Your task to perform on an android device: add a label to a message in the gmail app Image 0: 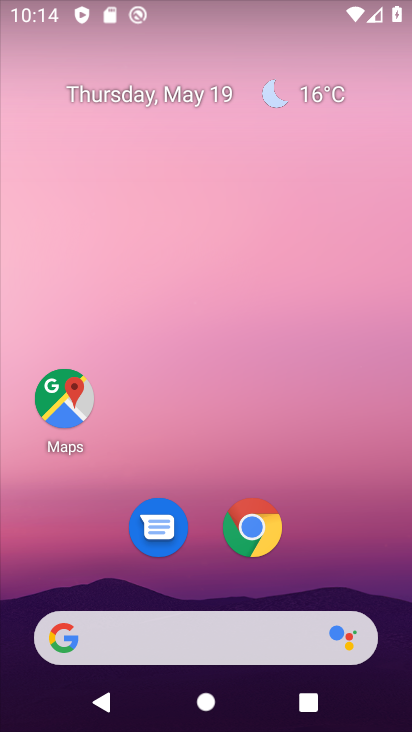
Step 0: drag from (191, 583) to (146, 86)
Your task to perform on an android device: add a label to a message in the gmail app Image 1: 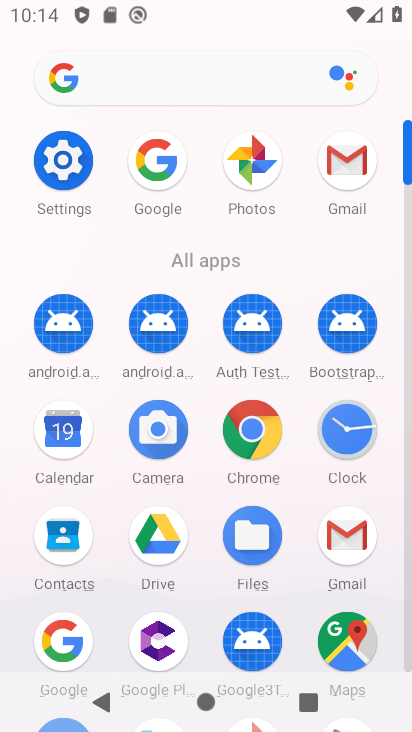
Step 1: click (339, 169)
Your task to perform on an android device: add a label to a message in the gmail app Image 2: 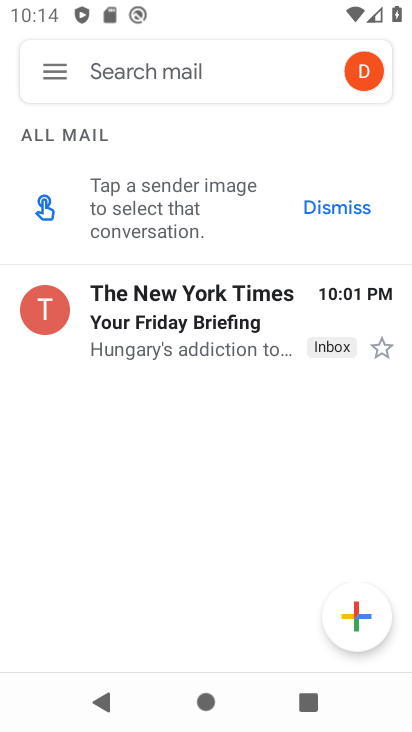
Step 2: click (48, 69)
Your task to perform on an android device: add a label to a message in the gmail app Image 3: 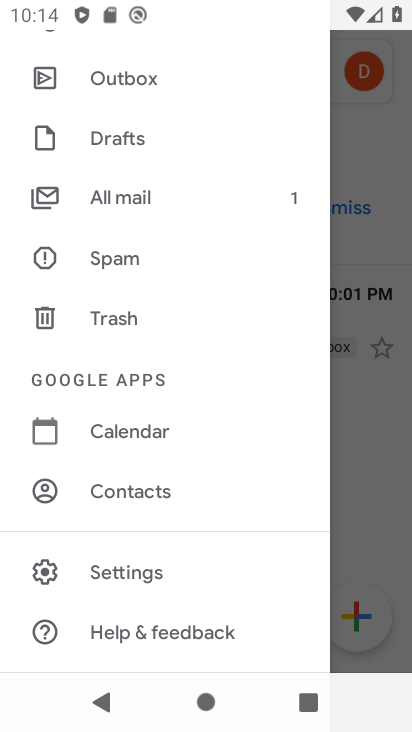
Step 3: drag from (142, 84) to (171, 579)
Your task to perform on an android device: add a label to a message in the gmail app Image 4: 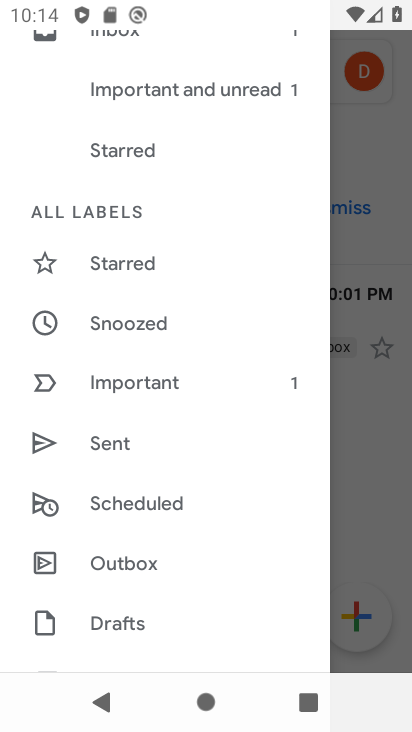
Step 4: drag from (139, 102) to (166, 508)
Your task to perform on an android device: add a label to a message in the gmail app Image 5: 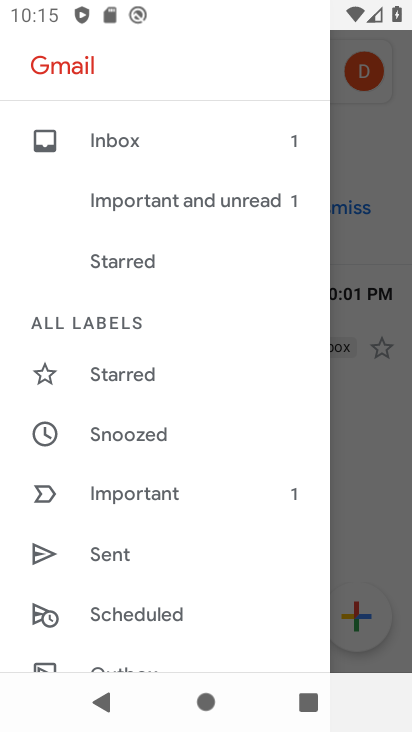
Step 5: drag from (116, 417) to (116, 285)
Your task to perform on an android device: add a label to a message in the gmail app Image 6: 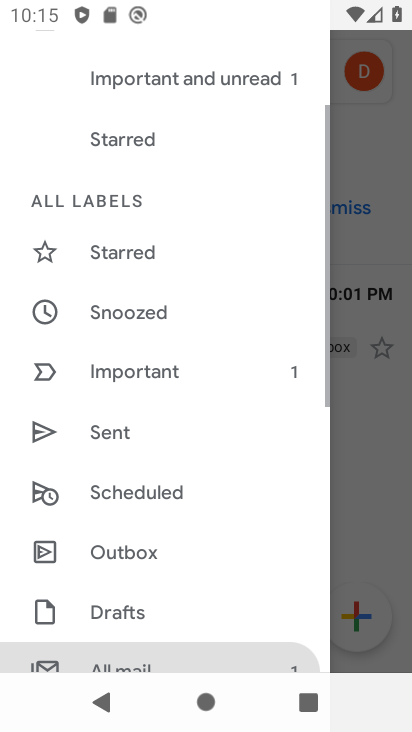
Step 6: click (142, 343)
Your task to perform on an android device: add a label to a message in the gmail app Image 7: 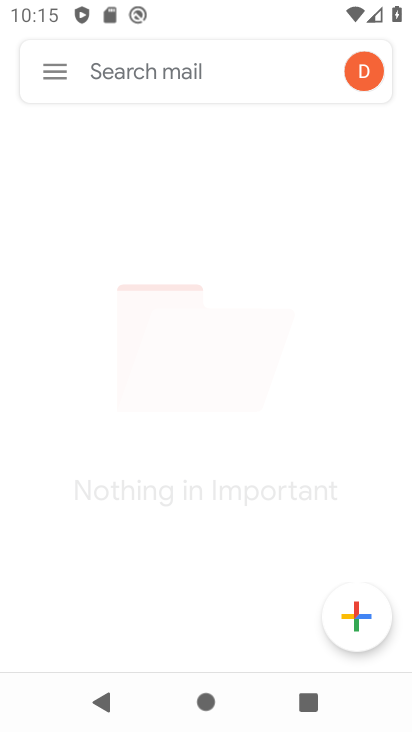
Step 7: drag from (149, 640) to (158, 383)
Your task to perform on an android device: add a label to a message in the gmail app Image 8: 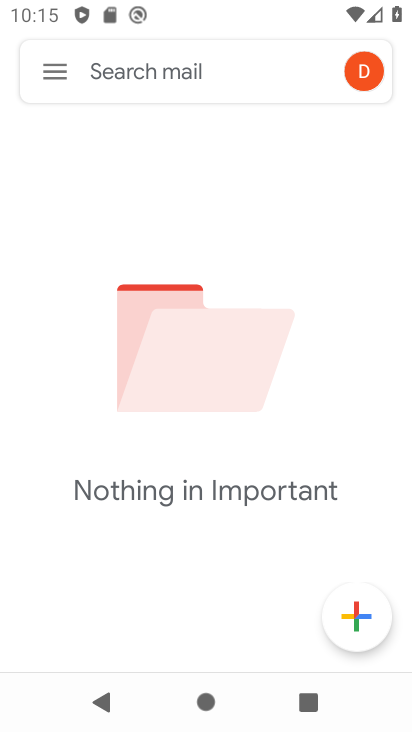
Step 8: drag from (171, 166) to (167, 318)
Your task to perform on an android device: add a label to a message in the gmail app Image 9: 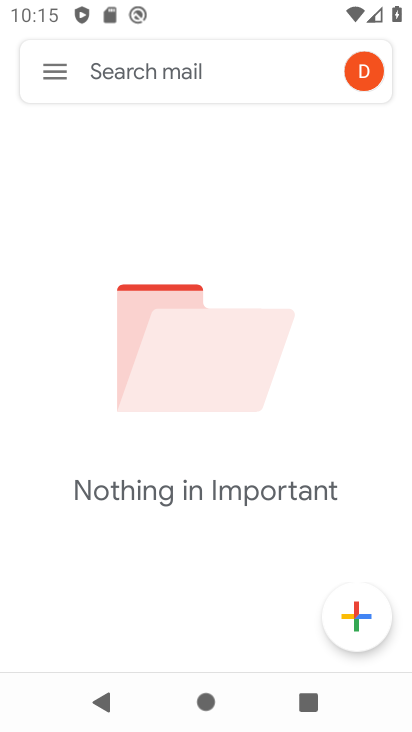
Step 9: click (43, 73)
Your task to perform on an android device: add a label to a message in the gmail app Image 10: 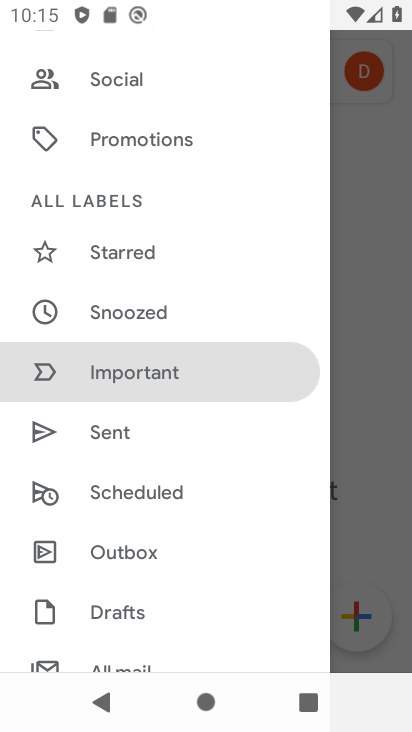
Step 10: click (110, 310)
Your task to perform on an android device: add a label to a message in the gmail app Image 11: 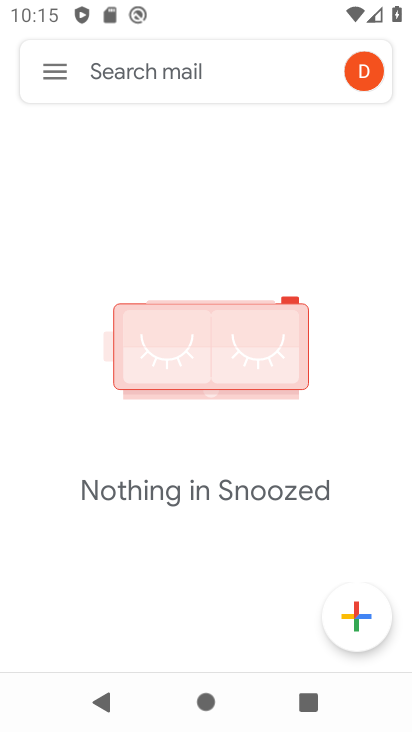
Step 11: task complete